Your task to perform on an android device: Search for pizza restaurants on Maps Image 0: 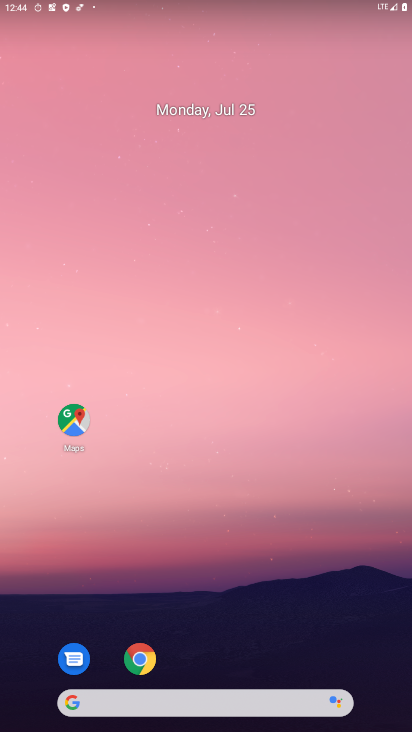
Step 0: click (67, 416)
Your task to perform on an android device: Search for pizza restaurants on Maps Image 1: 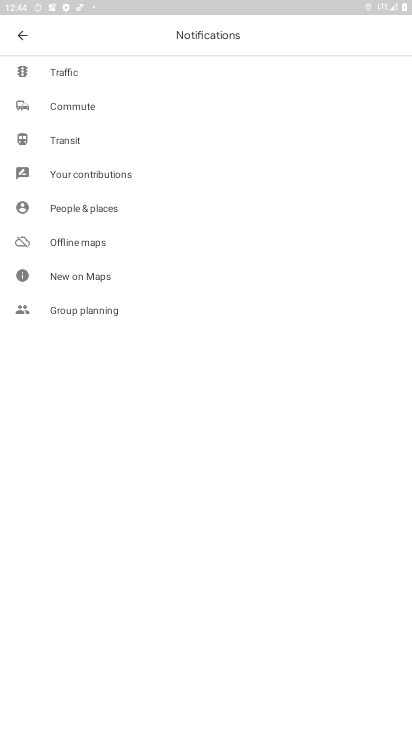
Step 1: click (17, 38)
Your task to perform on an android device: Search for pizza restaurants on Maps Image 2: 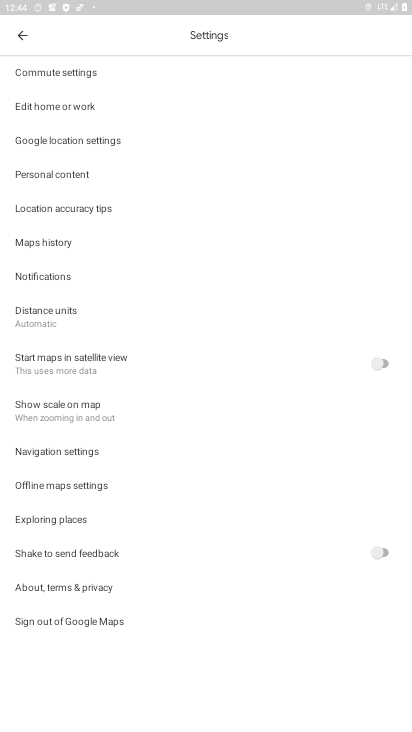
Step 2: click (19, 33)
Your task to perform on an android device: Search for pizza restaurants on Maps Image 3: 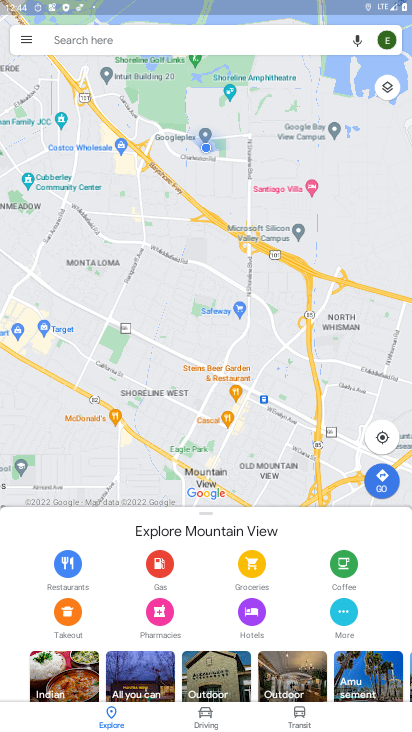
Step 3: click (64, 40)
Your task to perform on an android device: Search for pizza restaurants on Maps Image 4: 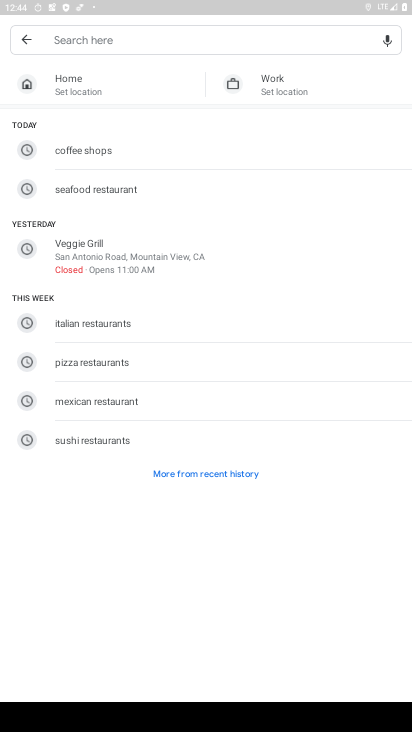
Step 4: type "pizza restaurants"
Your task to perform on an android device: Search for pizza restaurants on Maps Image 5: 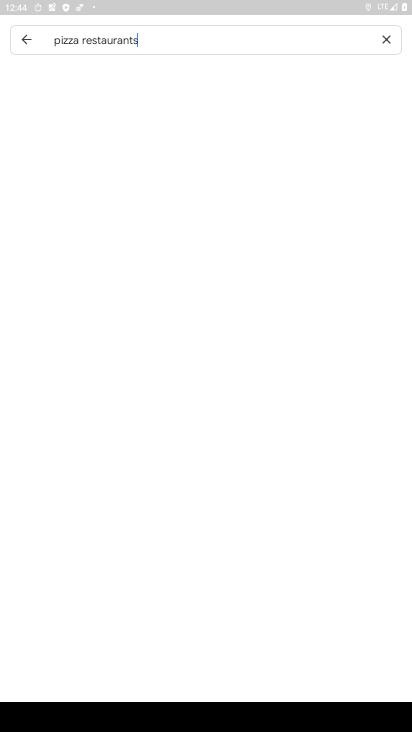
Step 5: type ""
Your task to perform on an android device: Search for pizza restaurants on Maps Image 6: 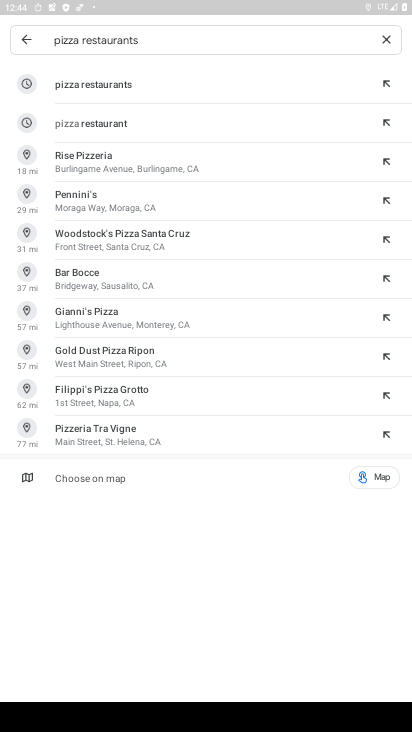
Step 6: click (123, 77)
Your task to perform on an android device: Search for pizza restaurants on Maps Image 7: 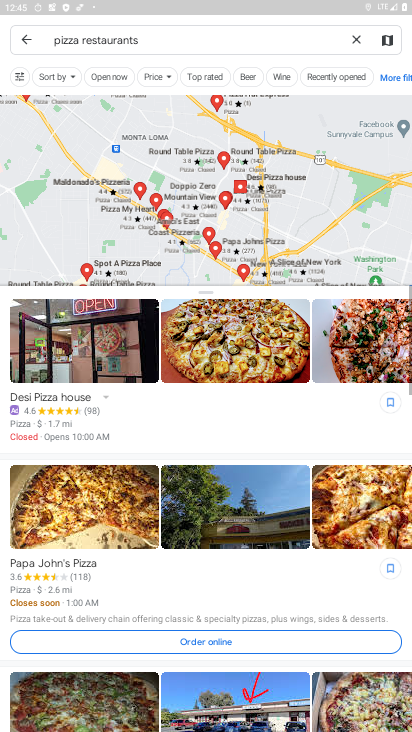
Step 7: task complete